Your task to perform on an android device: install app "Airtel Thanks" Image 0: 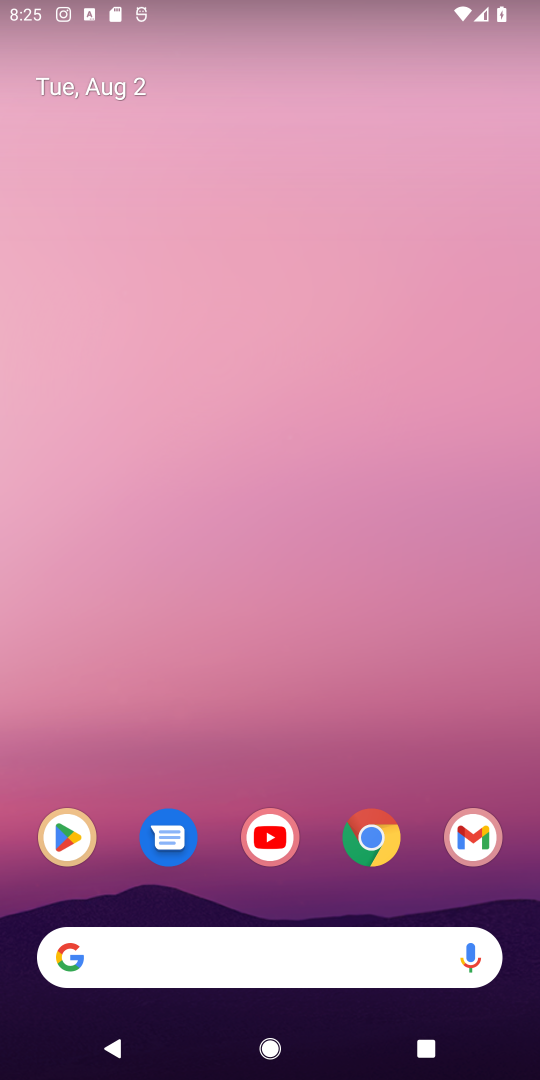
Step 0: click (58, 826)
Your task to perform on an android device: install app "Airtel Thanks" Image 1: 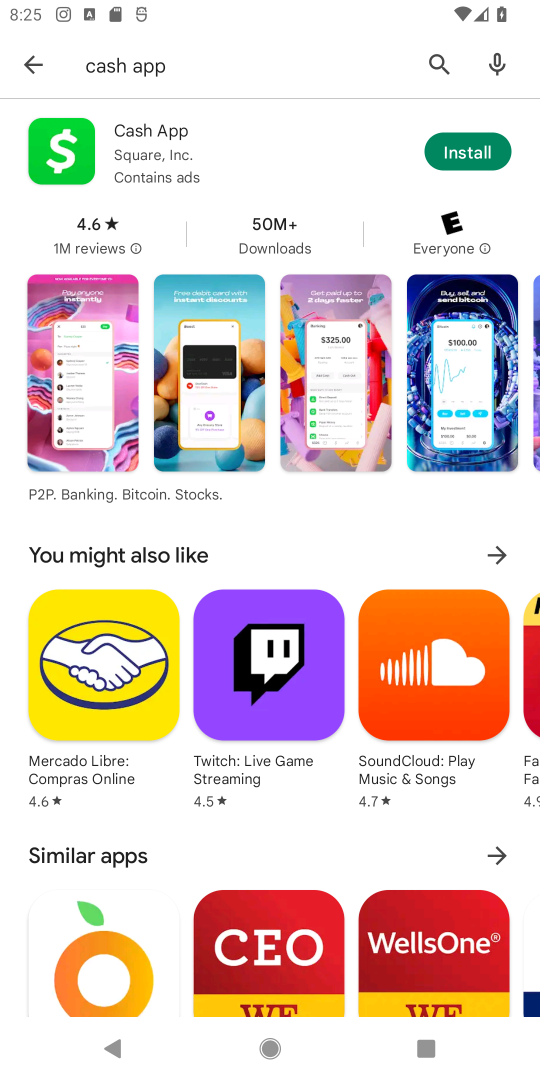
Step 1: click (445, 73)
Your task to perform on an android device: install app "Airtel Thanks" Image 2: 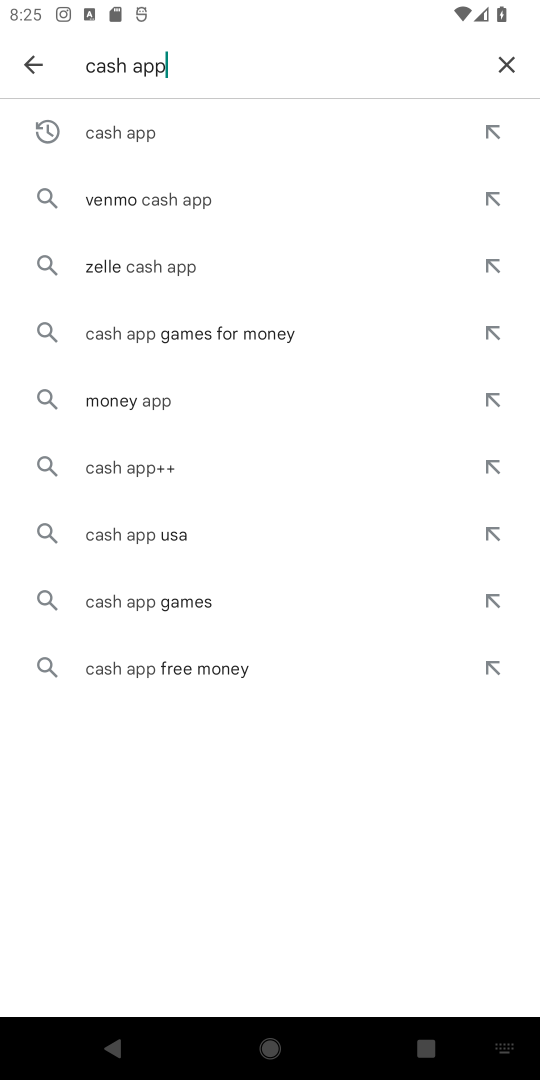
Step 2: click (503, 69)
Your task to perform on an android device: install app "Airtel Thanks" Image 3: 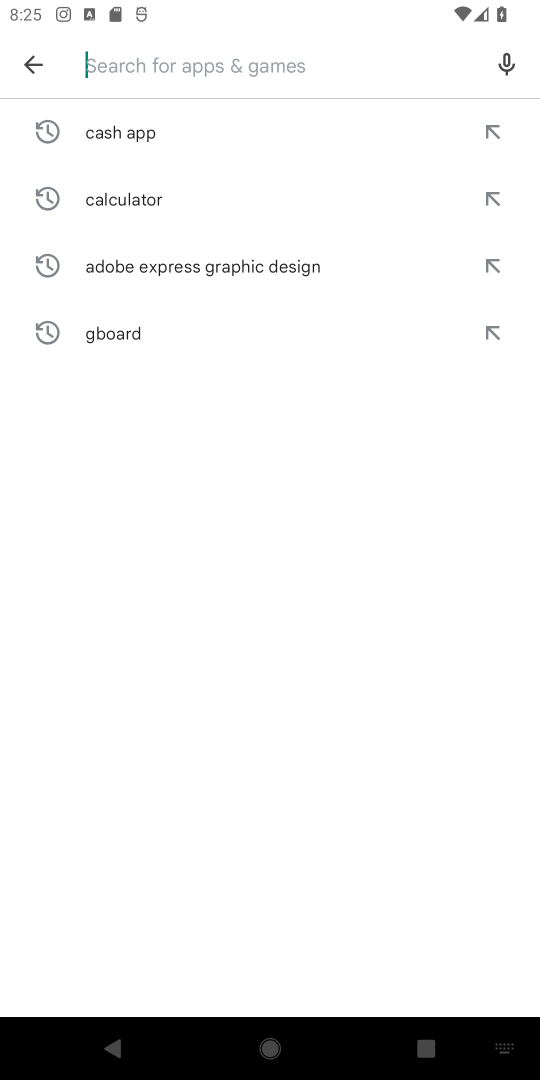
Step 3: type "Airtel Thanks"
Your task to perform on an android device: install app "Airtel Thanks" Image 4: 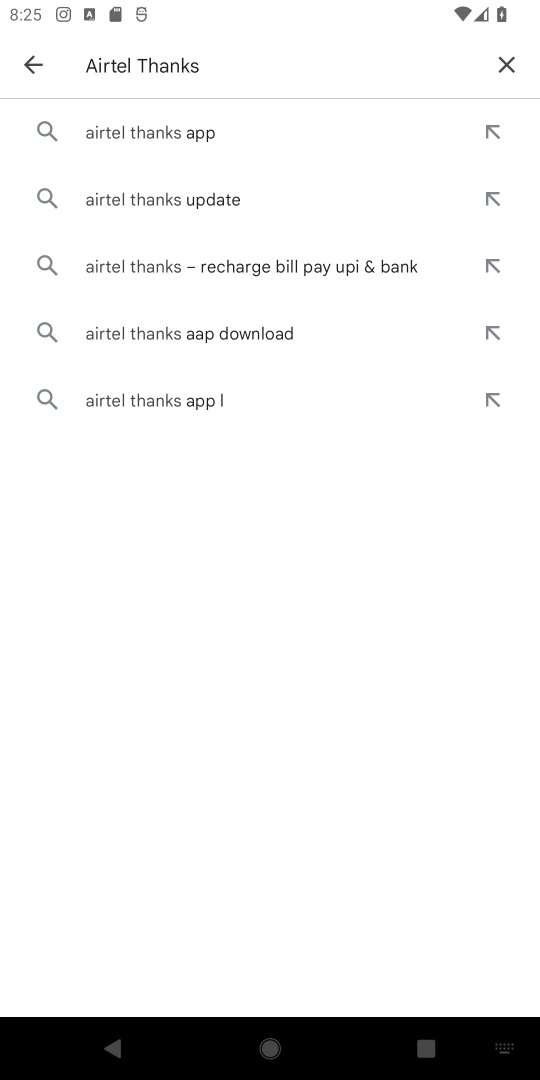
Step 4: click (142, 141)
Your task to perform on an android device: install app "Airtel Thanks" Image 5: 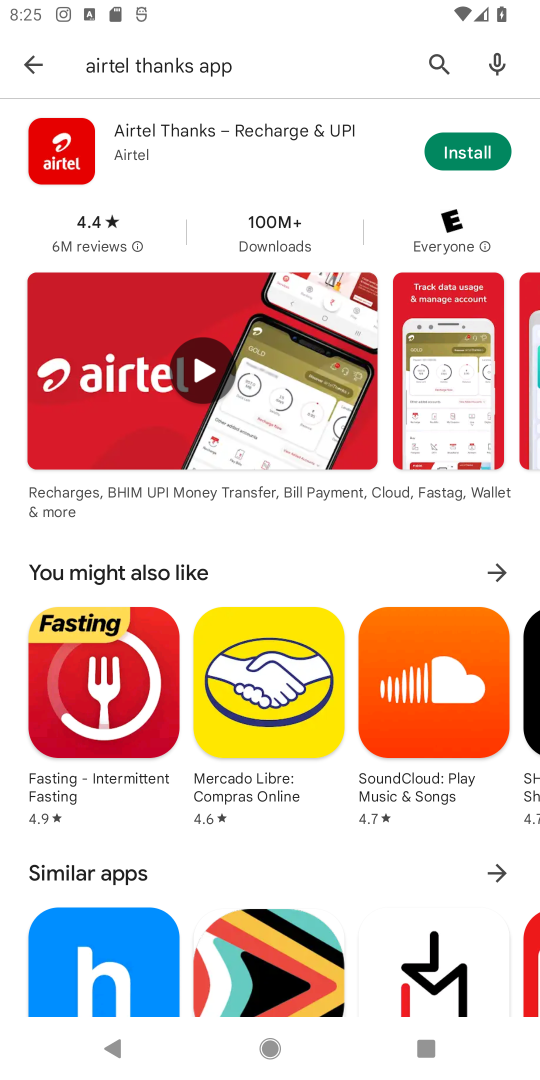
Step 5: click (447, 157)
Your task to perform on an android device: install app "Airtel Thanks" Image 6: 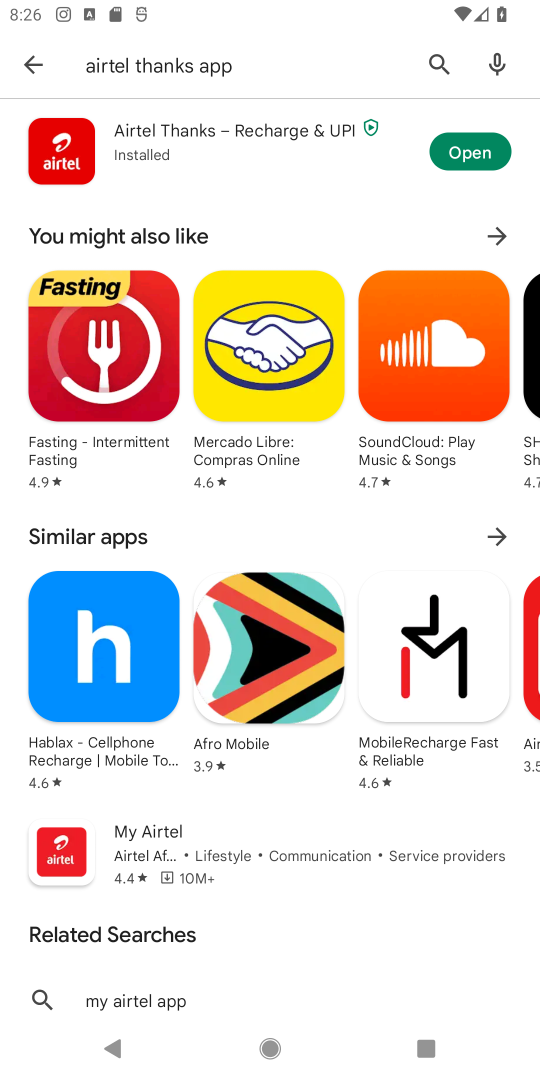
Step 6: task complete